Your task to perform on an android device: Open my contact list Image 0: 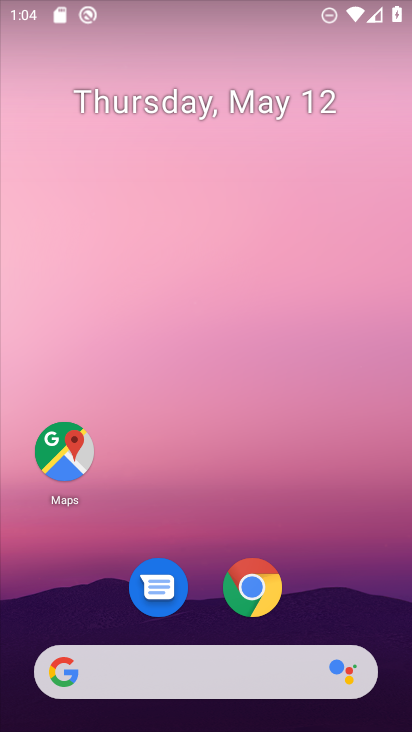
Step 0: drag from (333, 561) to (226, 71)
Your task to perform on an android device: Open my contact list Image 1: 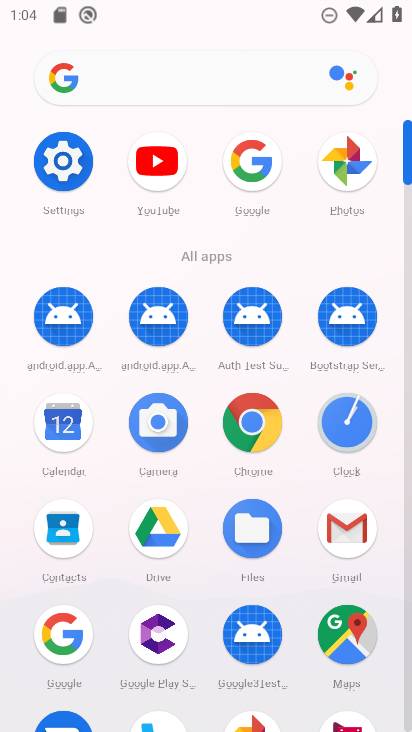
Step 1: click (62, 527)
Your task to perform on an android device: Open my contact list Image 2: 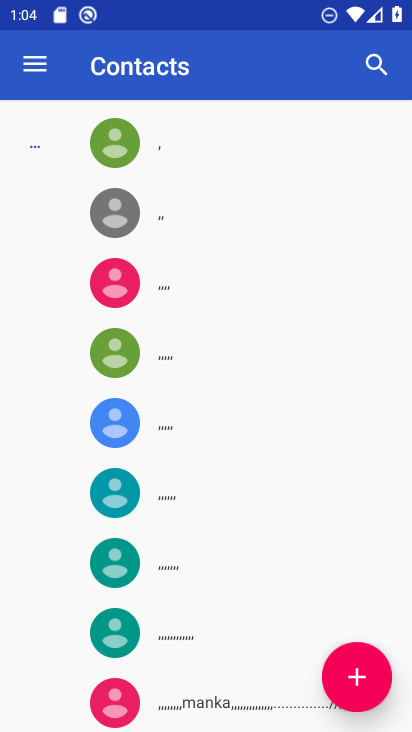
Step 2: task complete